Your task to perform on an android device: Open sound settings Image 0: 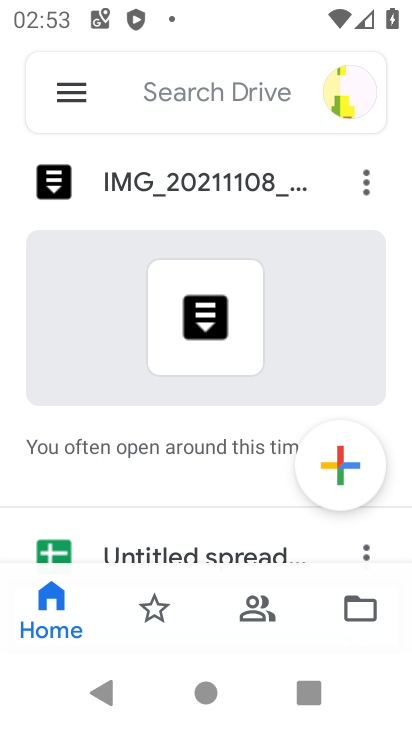
Step 0: press home button
Your task to perform on an android device: Open sound settings Image 1: 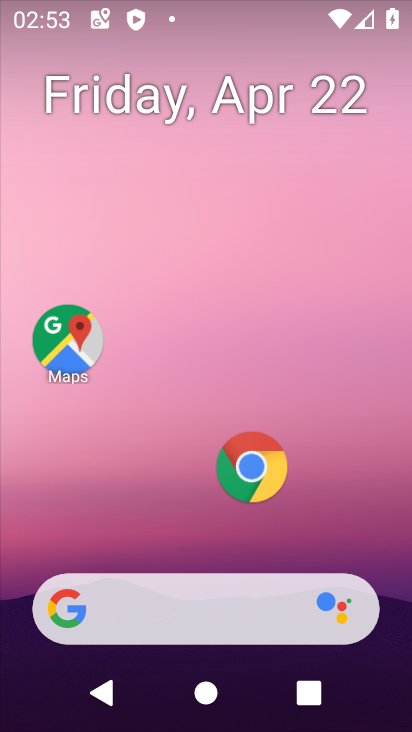
Step 1: drag from (213, 525) to (215, 121)
Your task to perform on an android device: Open sound settings Image 2: 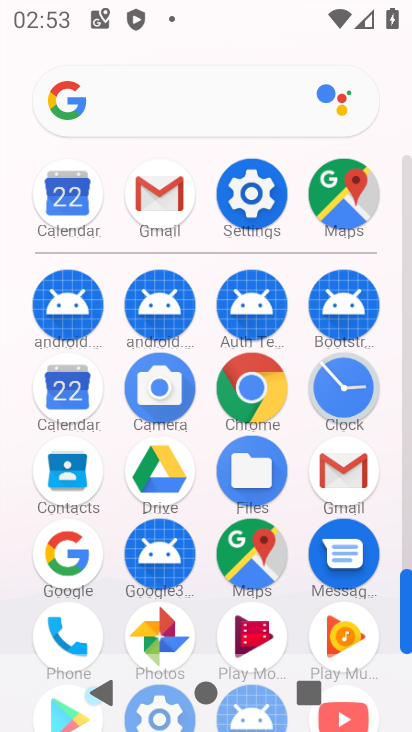
Step 2: click (251, 221)
Your task to perform on an android device: Open sound settings Image 3: 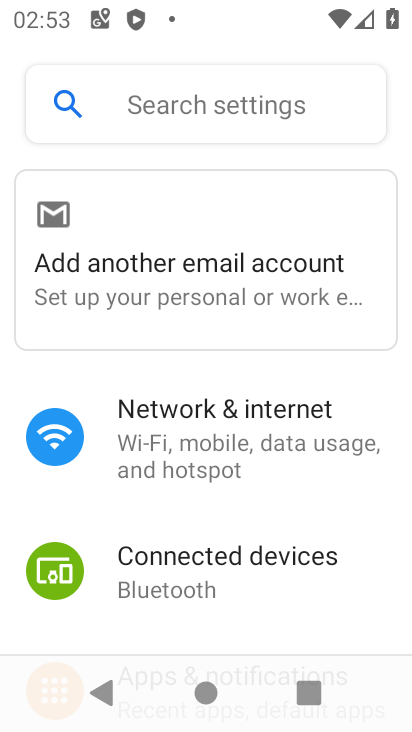
Step 3: drag from (197, 555) to (215, 180)
Your task to perform on an android device: Open sound settings Image 4: 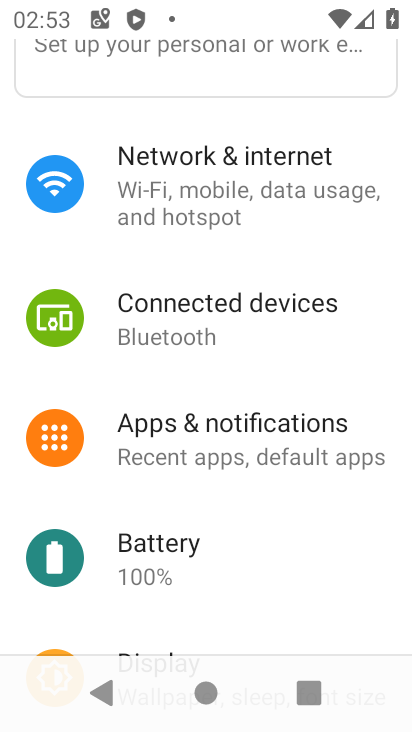
Step 4: drag from (209, 576) to (256, 218)
Your task to perform on an android device: Open sound settings Image 5: 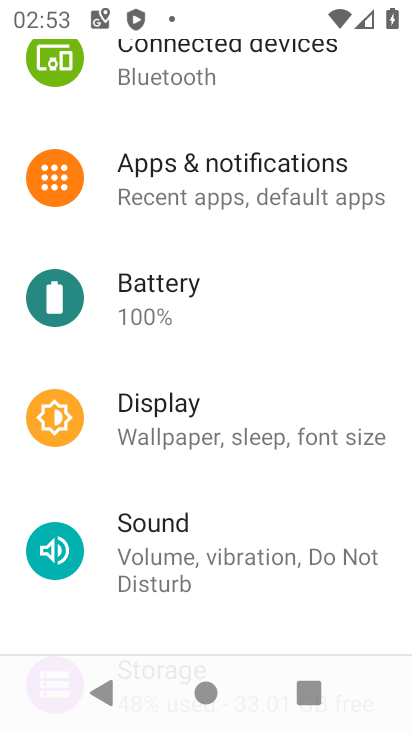
Step 5: click (193, 555)
Your task to perform on an android device: Open sound settings Image 6: 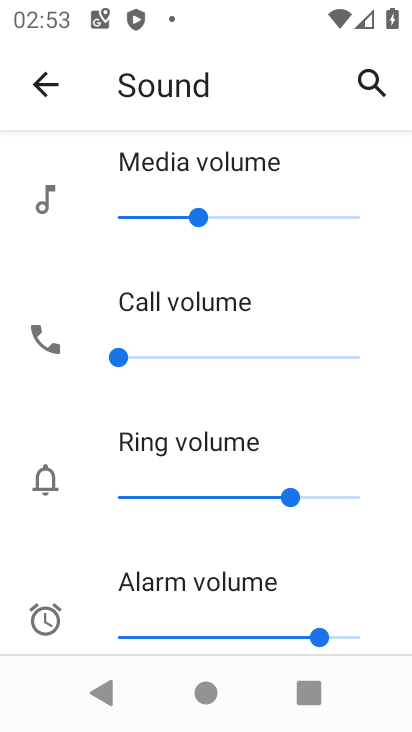
Step 6: task complete